Your task to perform on an android device: toggle priority inbox in the gmail app Image 0: 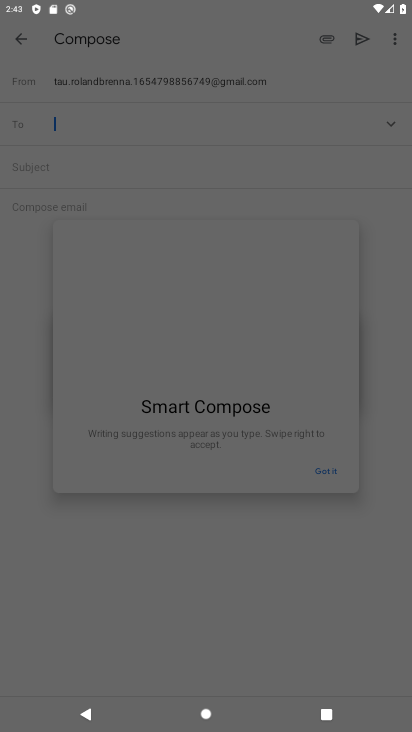
Step 0: press home button
Your task to perform on an android device: toggle priority inbox in the gmail app Image 1: 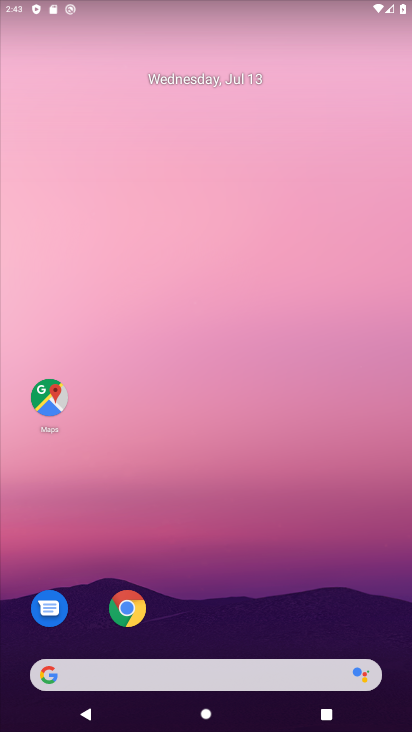
Step 1: drag from (272, 646) to (365, 52)
Your task to perform on an android device: toggle priority inbox in the gmail app Image 2: 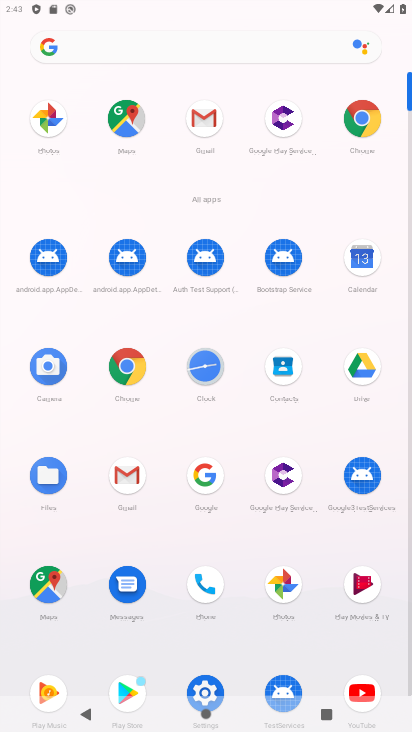
Step 2: click (122, 476)
Your task to perform on an android device: toggle priority inbox in the gmail app Image 3: 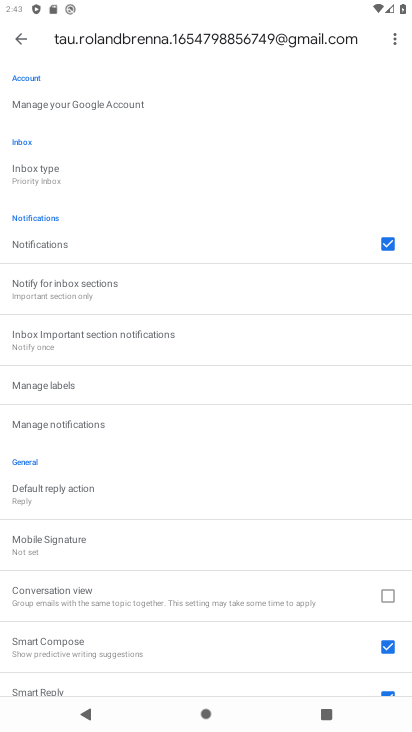
Step 3: click (111, 172)
Your task to perform on an android device: toggle priority inbox in the gmail app Image 4: 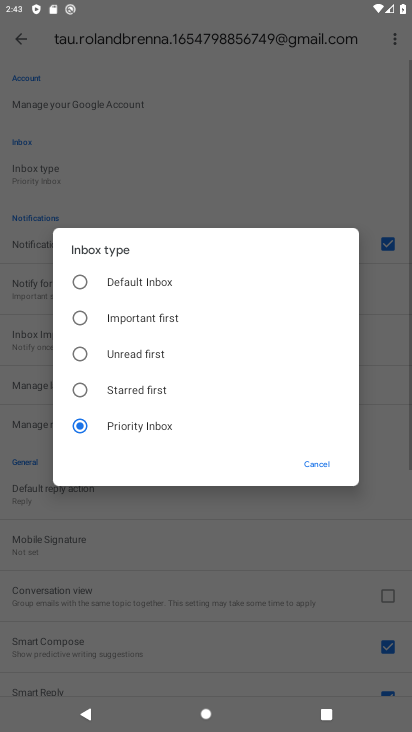
Step 4: click (114, 282)
Your task to perform on an android device: toggle priority inbox in the gmail app Image 5: 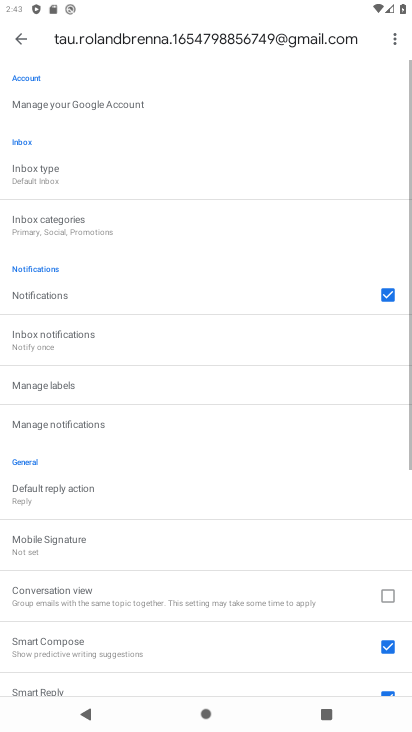
Step 5: task complete